Your task to perform on an android device: Open Maps and search for coffee Image 0: 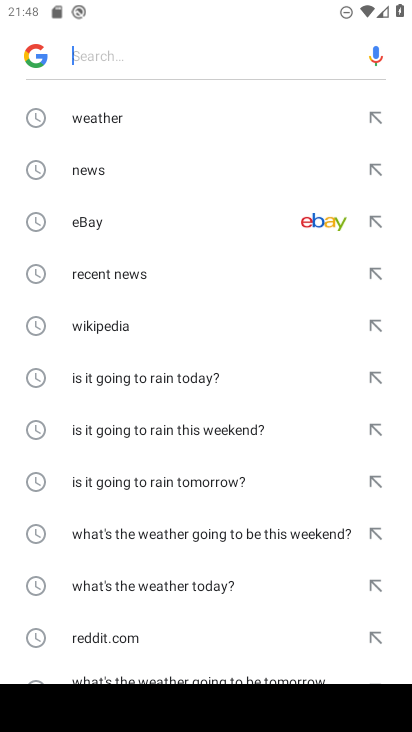
Step 0: press home button
Your task to perform on an android device: Open Maps and search for coffee Image 1: 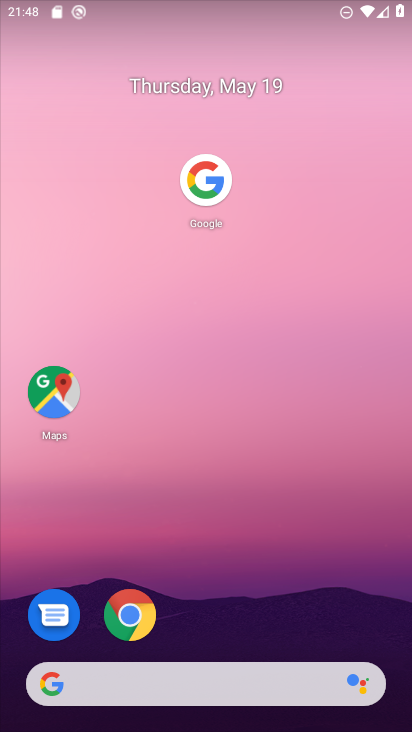
Step 1: click (61, 386)
Your task to perform on an android device: Open Maps and search for coffee Image 2: 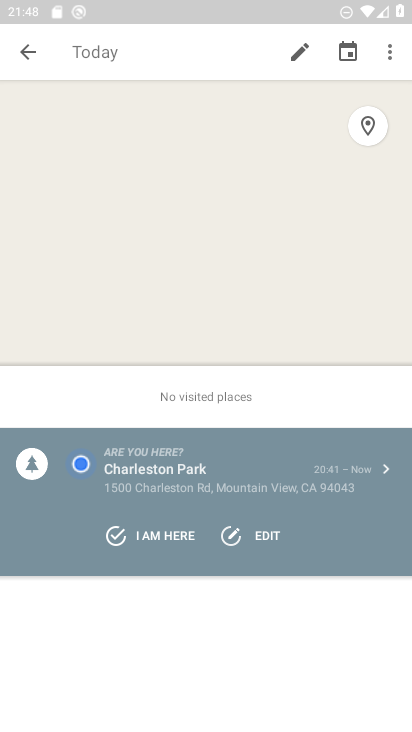
Step 2: click (151, 62)
Your task to perform on an android device: Open Maps and search for coffee Image 3: 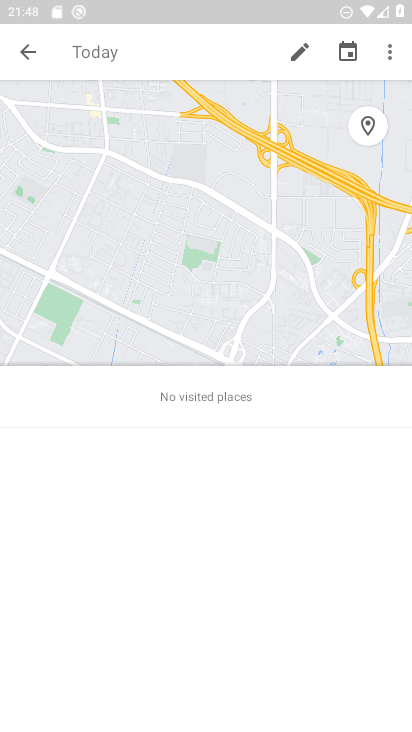
Step 3: press back button
Your task to perform on an android device: Open Maps and search for coffee Image 4: 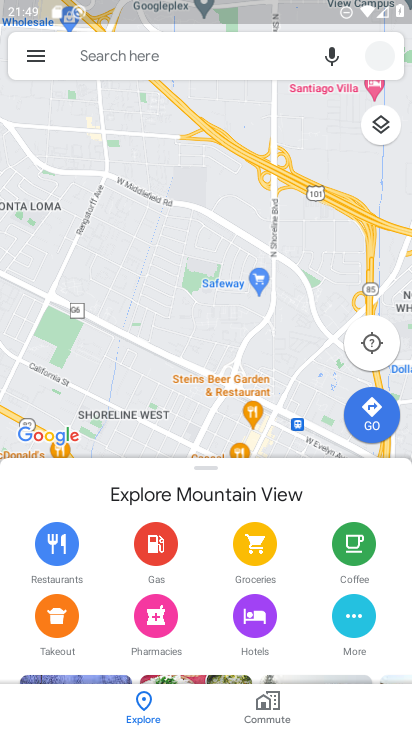
Step 4: click (169, 68)
Your task to perform on an android device: Open Maps and search for coffee Image 5: 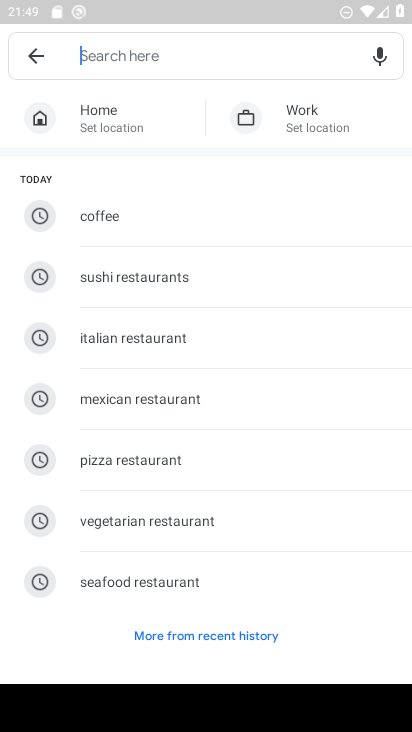
Step 5: click (123, 212)
Your task to perform on an android device: Open Maps and search for coffee Image 6: 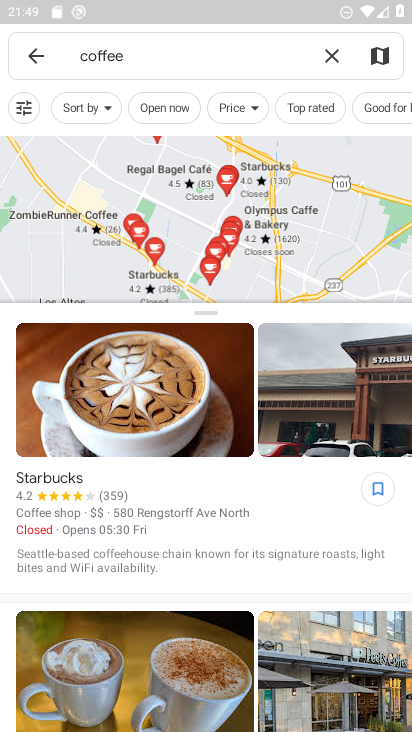
Step 6: task complete